Your task to perform on an android device: Go to internet settings Image 0: 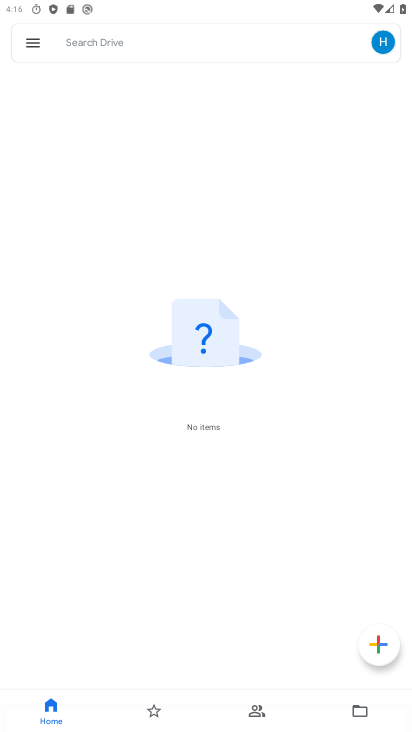
Step 0: press home button
Your task to perform on an android device: Go to internet settings Image 1: 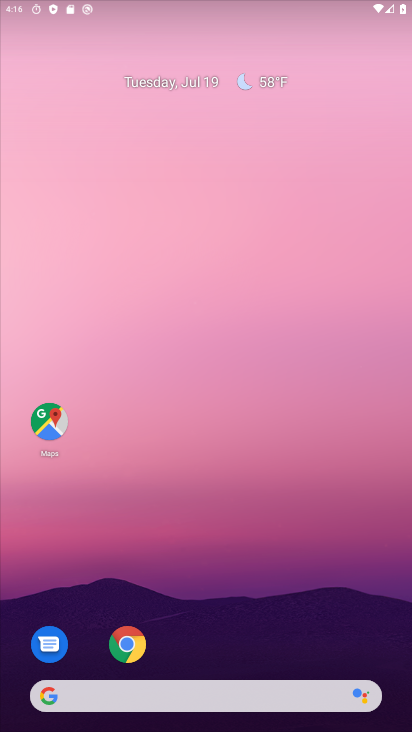
Step 1: drag from (284, 619) to (180, 125)
Your task to perform on an android device: Go to internet settings Image 2: 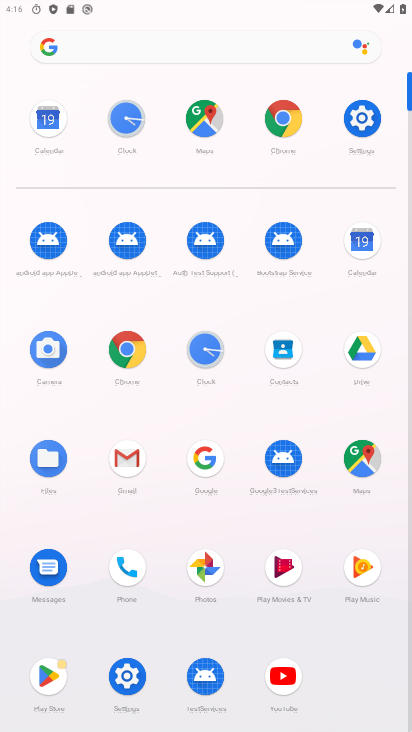
Step 2: click (353, 121)
Your task to perform on an android device: Go to internet settings Image 3: 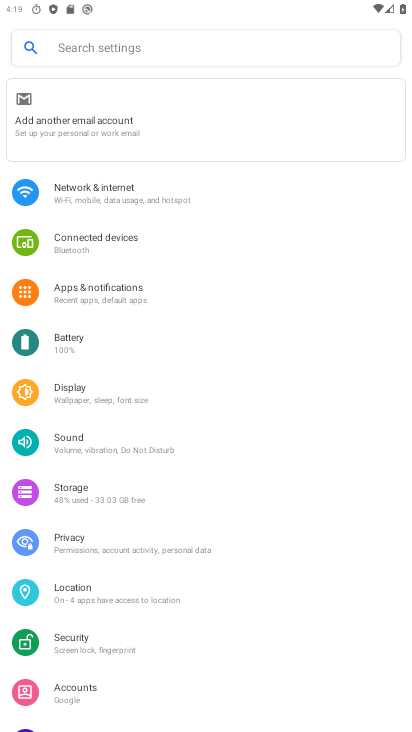
Step 3: click (143, 191)
Your task to perform on an android device: Go to internet settings Image 4: 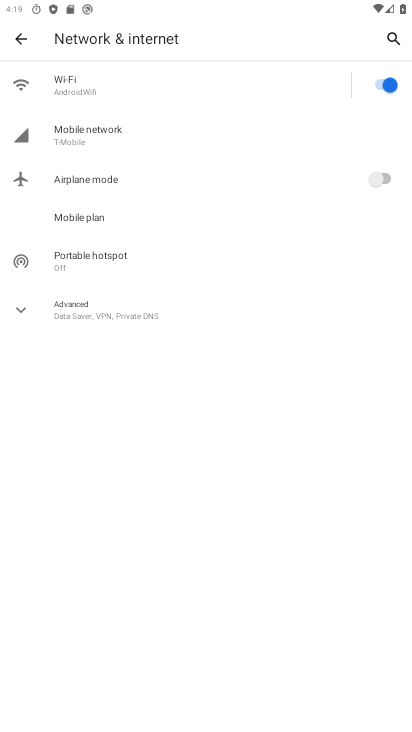
Step 4: click (146, 124)
Your task to perform on an android device: Go to internet settings Image 5: 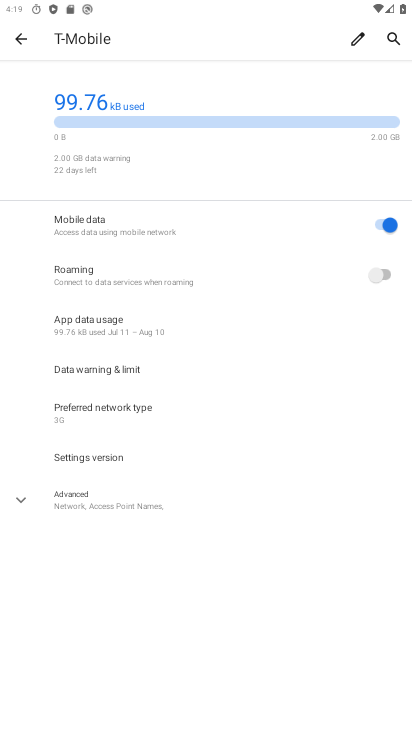
Step 5: click (20, 32)
Your task to perform on an android device: Go to internet settings Image 6: 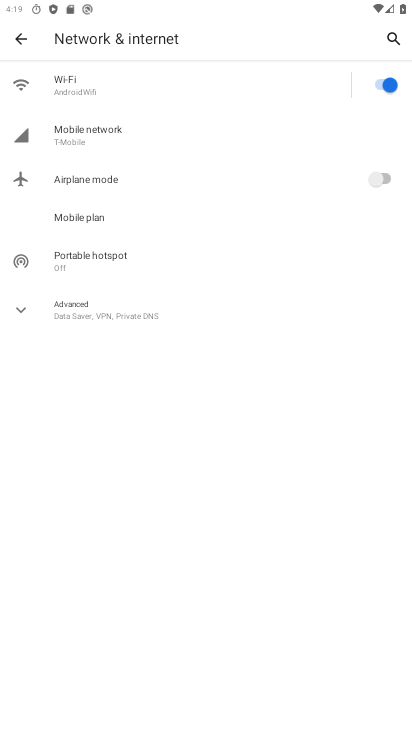
Step 6: click (110, 298)
Your task to perform on an android device: Go to internet settings Image 7: 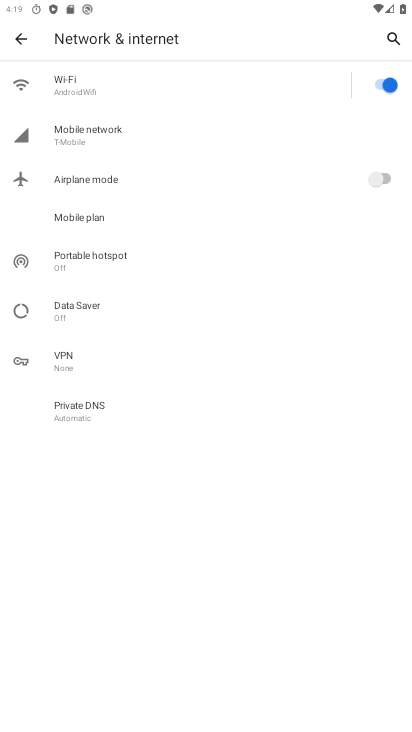
Step 7: task complete